Your task to perform on an android device: Is it going to rain tomorrow? Image 0: 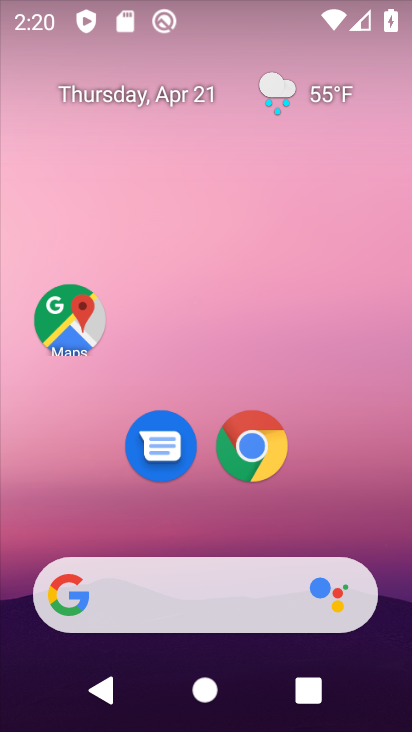
Step 0: click (276, 91)
Your task to perform on an android device: Is it going to rain tomorrow? Image 1: 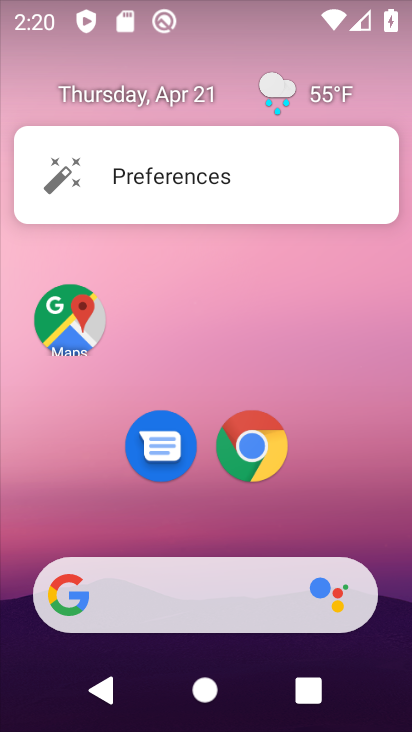
Step 1: click (281, 92)
Your task to perform on an android device: Is it going to rain tomorrow? Image 2: 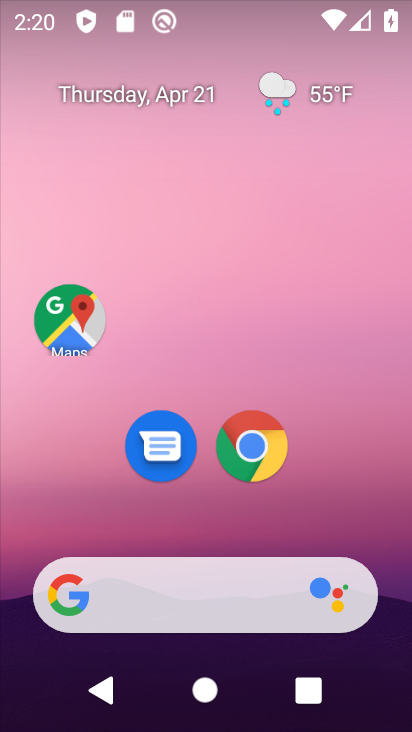
Step 2: click (282, 81)
Your task to perform on an android device: Is it going to rain tomorrow? Image 3: 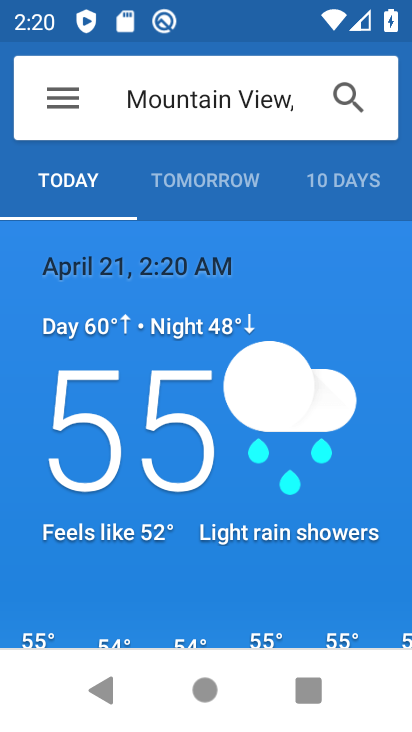
Step 3: click (225, 181)
Your task to perform on an android device: Is it going to rain tomorrow? Image 4: 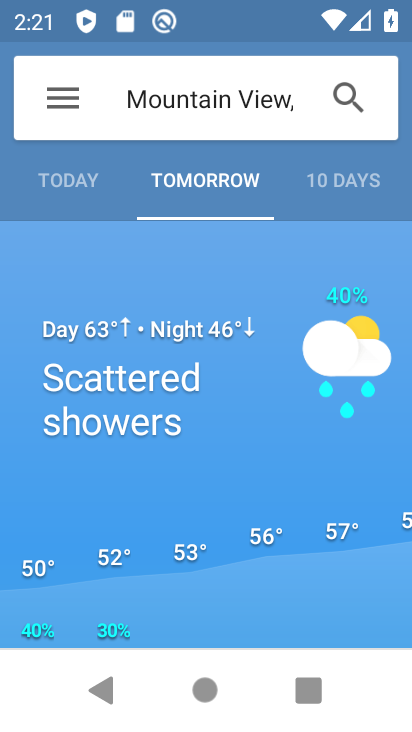
Step 4: task complete